Your task to perform on an android device: open chrome and create a bookmark for the current page Image 0: 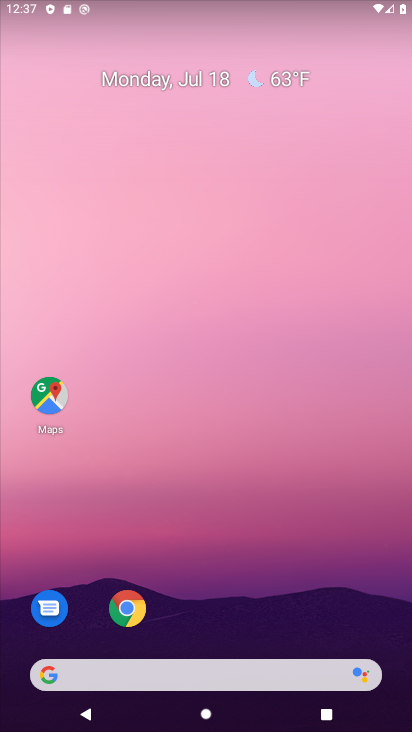
Step 0: drag from (212, 439) to (134, 47)
Your task to perform on an android device: open chrome and create a bookmark for the current page Image 1: 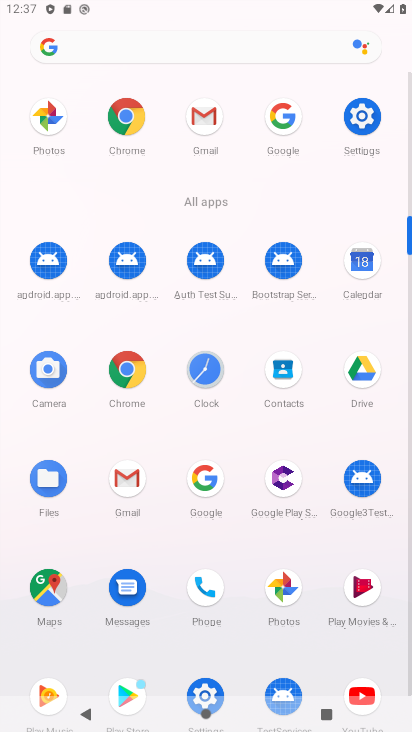
Step 1: drag from (225, 643) to (156, 214)
Your task to perform on an android device: open chrome and create a bookmark for the current page Image 2: 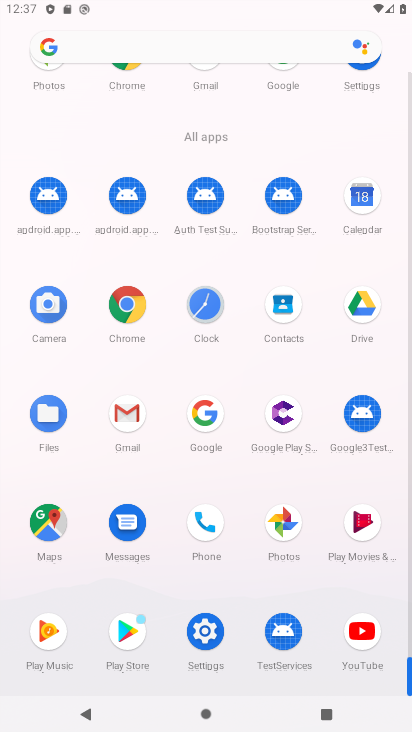
Step 2: click (122, 321)
Your task to perform on an android device: open chrome and create a bookmark for the current page Image 3: 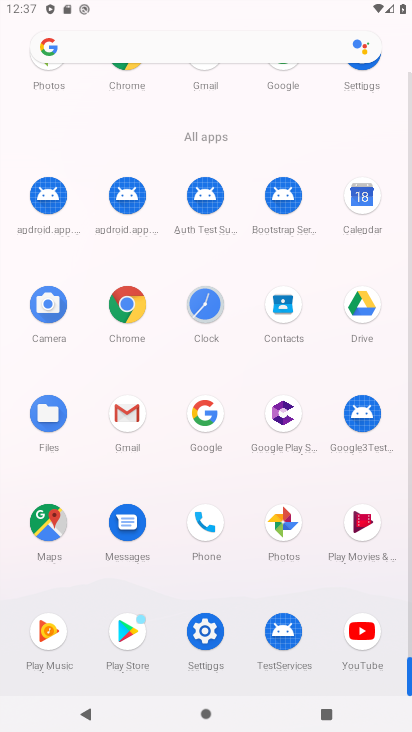
Step 3: click (122, 318)
Your task to perform on an android device: open chrome and create a bookmark for the current page Image 4: 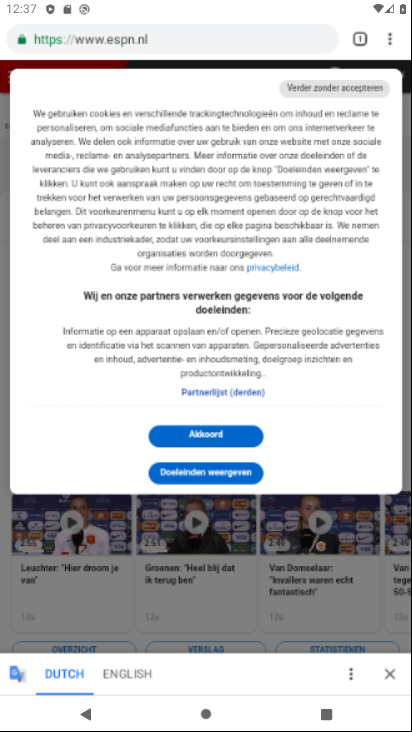
Step 4: click (122, 302)
Your task to perform on an android device: open chrome and create a bookmark for the current page Image 5: 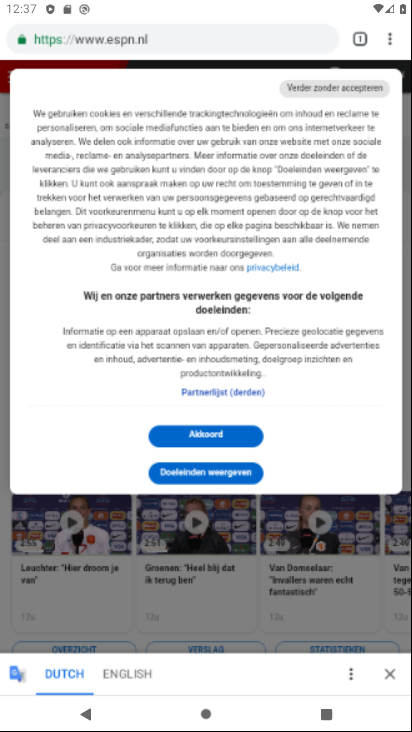
Step 5: click (117, 296)
Your task to perform on an android device: open chrome and create a bookmark for the current page Image 6: 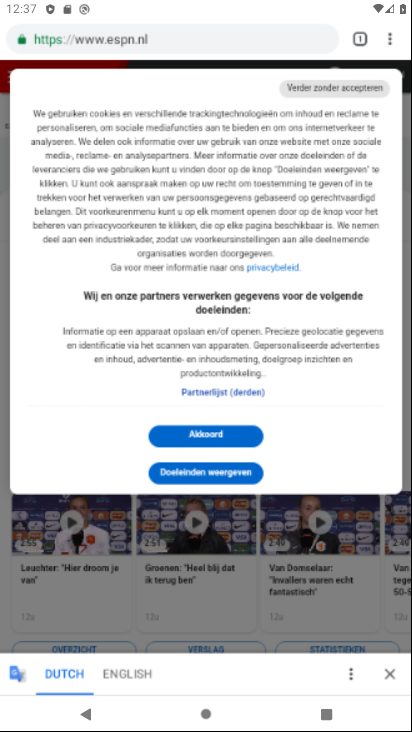
Step 6: click (126, 306)
Your task to perform on an android device: open chrome and create a bookmark for the current page Image 7: 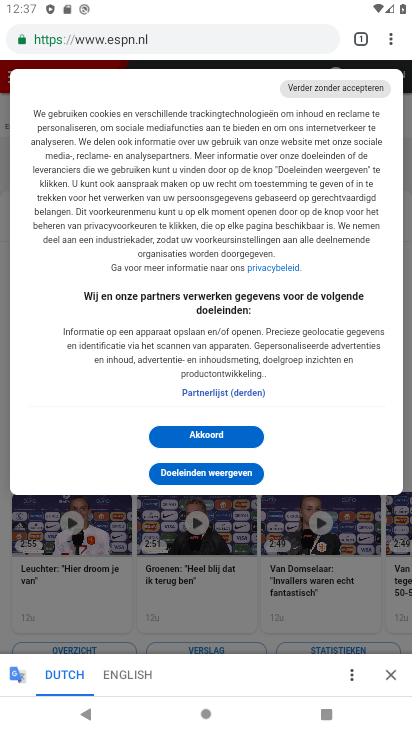
Step 7: task complete